Your task to perform on an android device: Go to wifi settings Image 0: 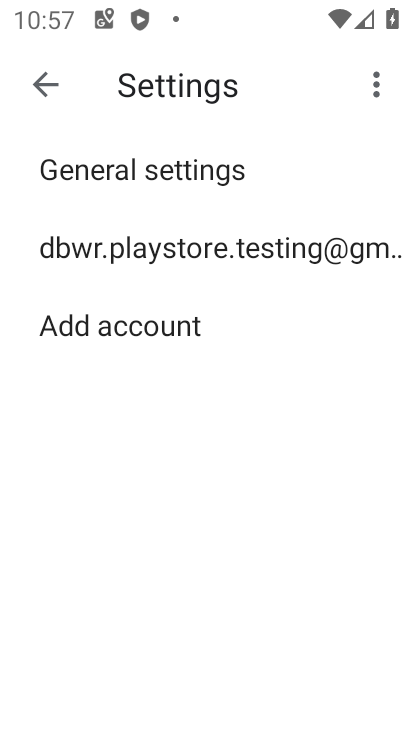
Step 0: press home button
Your task to perform on an android device: Go to wifi settings Image 1: 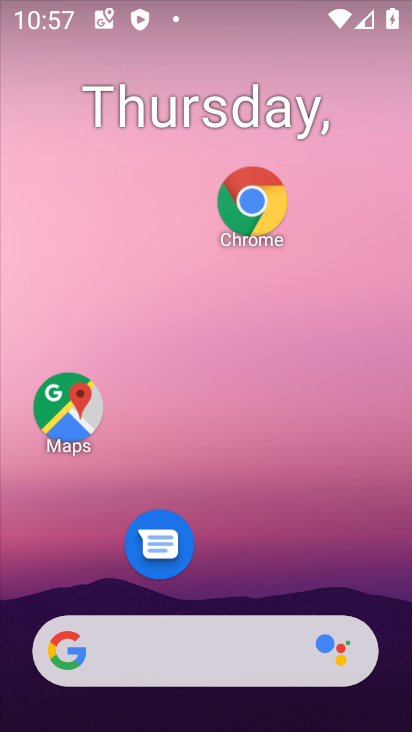
Step 1: drag from (223, 591) to (150, 4)
Your task to perform on an android device: Go to wifi settings Image 2: 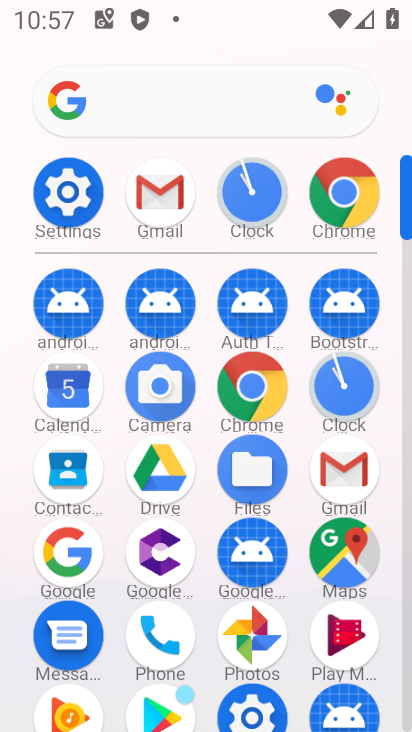
Step 2: click (74, 187)
Your task to perform on an android device: Go to wifi settings Image 3: 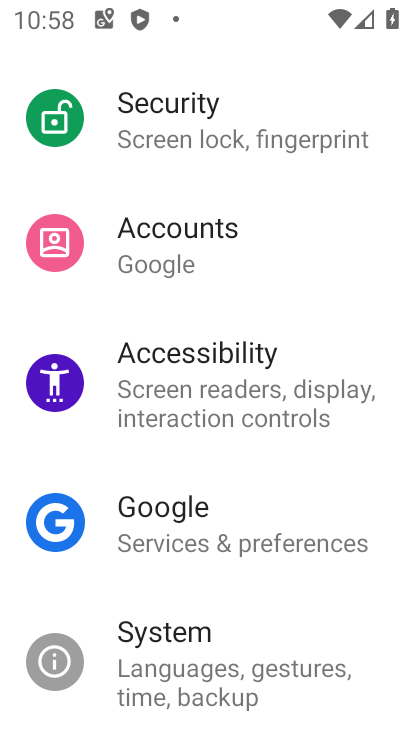
Step 3: drag from (181, 132) to (179, 712)
Your task to perform on an android device: Go to wifi settings Image 4: 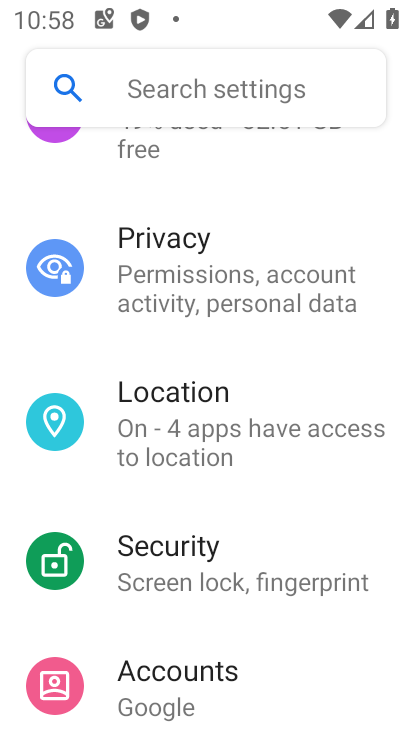
Step 4: drag from (164, 190) to (160, 708)
Your task to perform on an android device: Go to wifi settings Image 5: 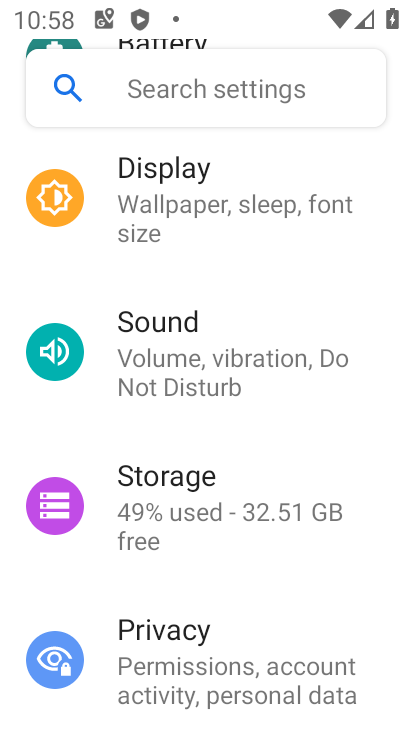
Step 5: drag from (211, 372) to (221, 725)
Your task to perform on an android device: Go to wifi settings Image 6: 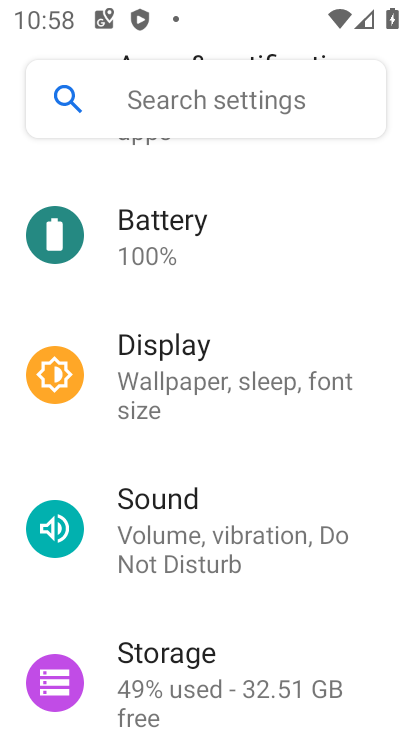
Step 6: drag from (201, 280) to (197, 731)
Your task to perform on an android device: Go to wifi settings Image 7: 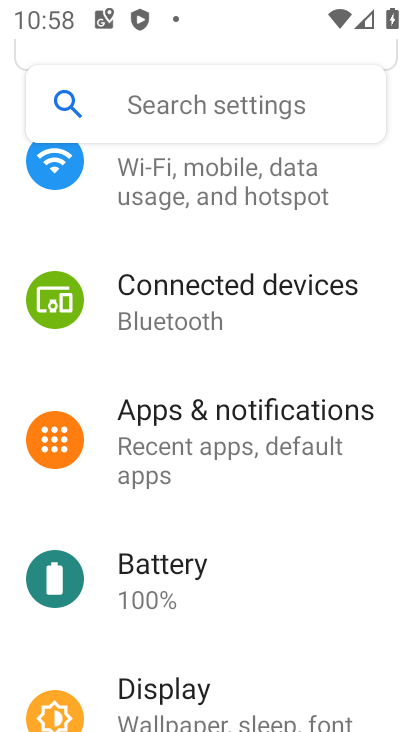
Step 7: click (168, 194)
Your task to perform on an android device: Go to wifi settings Image 8: 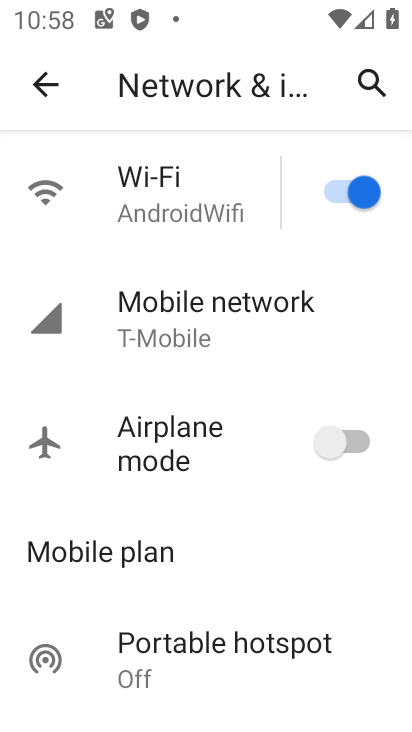
Step 8: drag from (202, 601) to (168, 655)
Your task to perform on an android device: Go to wifi settings Image 9: 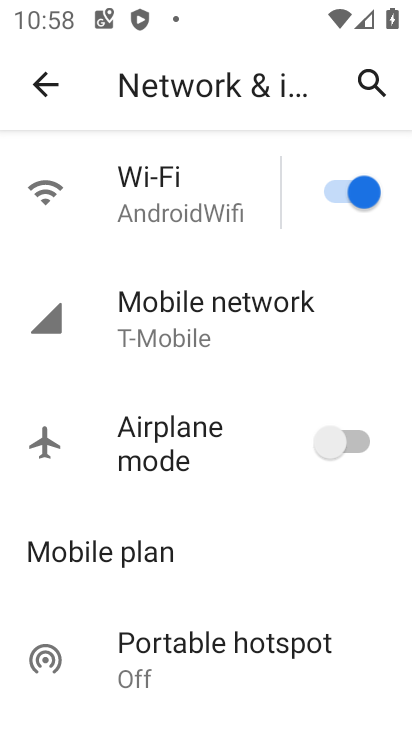
Step 9: click (185, 176)
Your task to perform on an android device: Go to wifi settings Image 10: 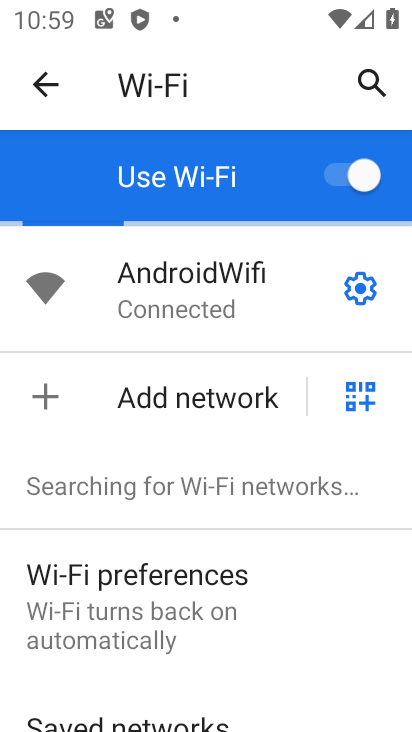
Step 10: task complete